Your task to perform on an android device: Go to Reddit.com Image 0: 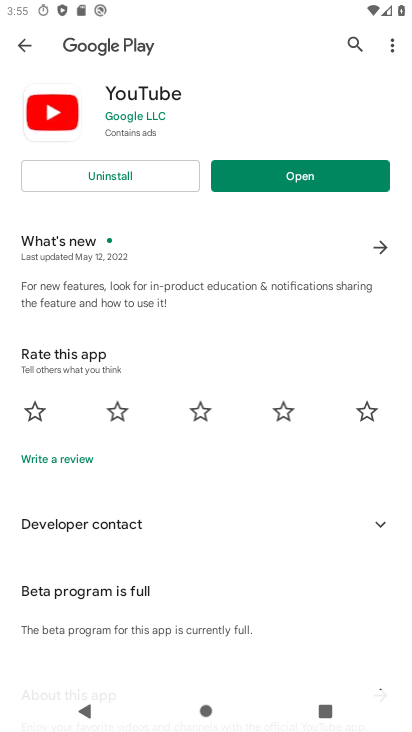
Step 0: press home button
Your task to perform on an android device: Go to Reddit.com Image 1: 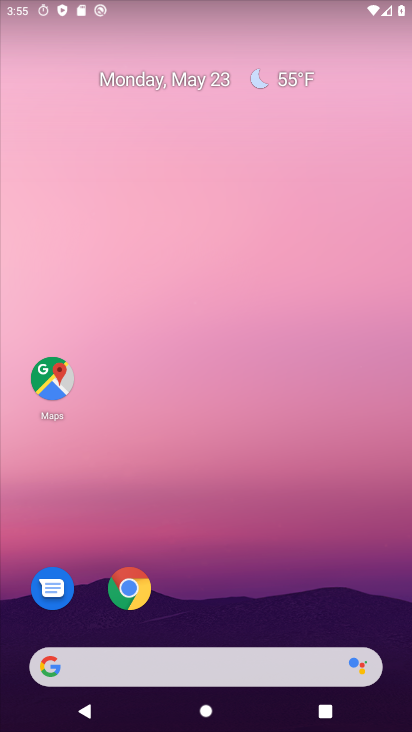
Step 1: drag from (244, 497) to (290, 117)
Your task to perform on an android device: Go to Reddit.com Image 2: 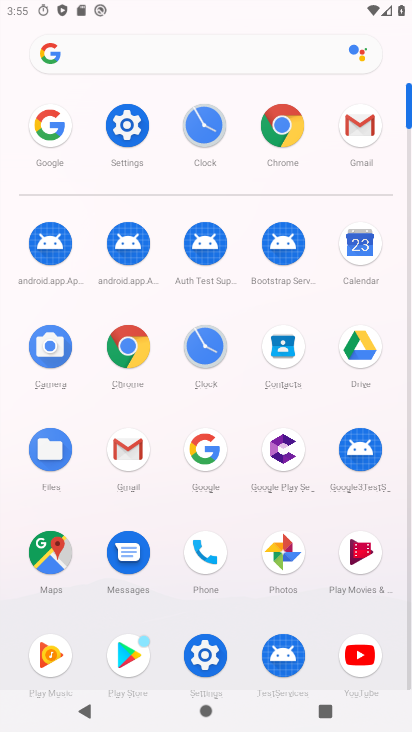
Step 2: click (201, 451)
Your task to perform on an android device: Go to Reddit.com Image 3: 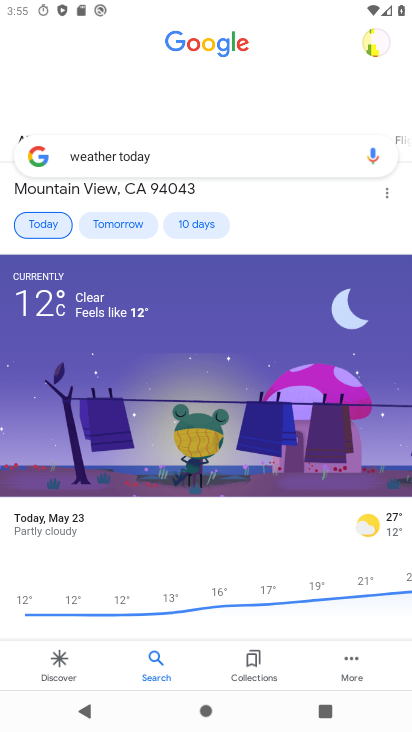
Step 3: click (209, 145)
Your task to perform on an android device: Go to Reddit.com Image 4: 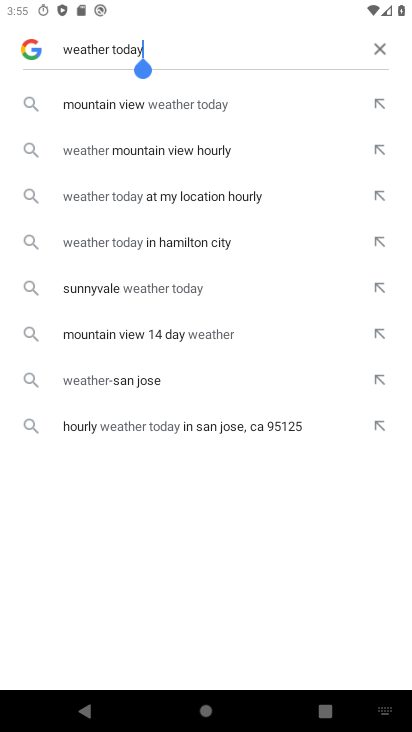
Step 4: click (381, 51)
Your task to perform on an android device: Go to Reddit.com Image 5: 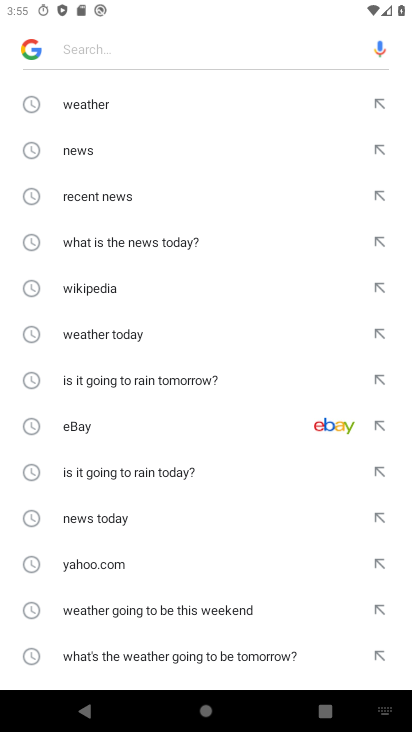
Step 5: drag from (160, 471) to (187, 131)
Your task to perform on an android device: Go to Reddit.com Image 6: 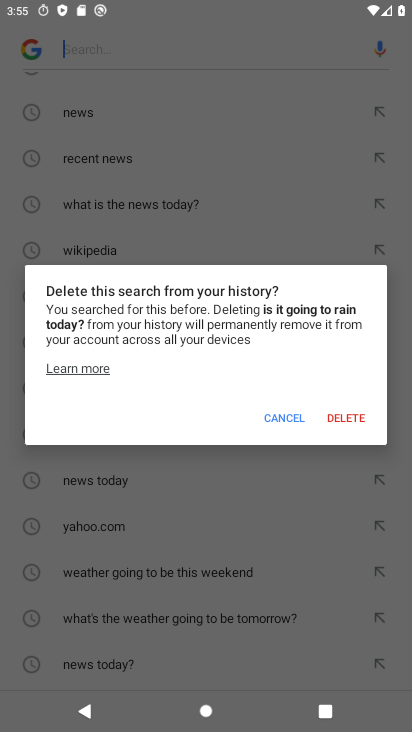
Step 6: click (291, 406)
Your task to perform on an android device: Go to Reddit.com Image 7: 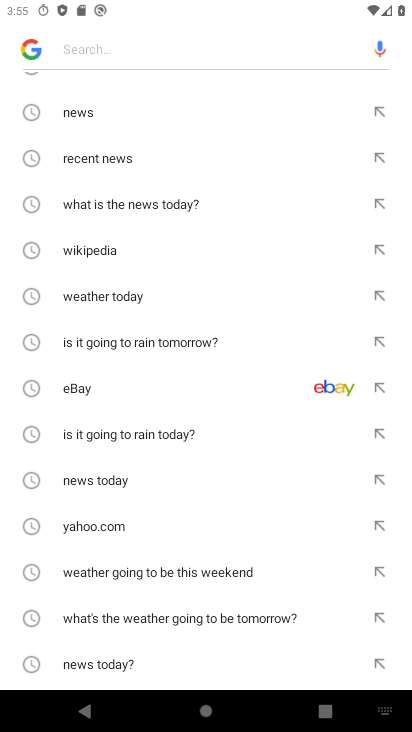
Step 7: drag from (148, 592) to (183, 222)
Your task to perform on an android device: Go to Reddit.com Image 8: 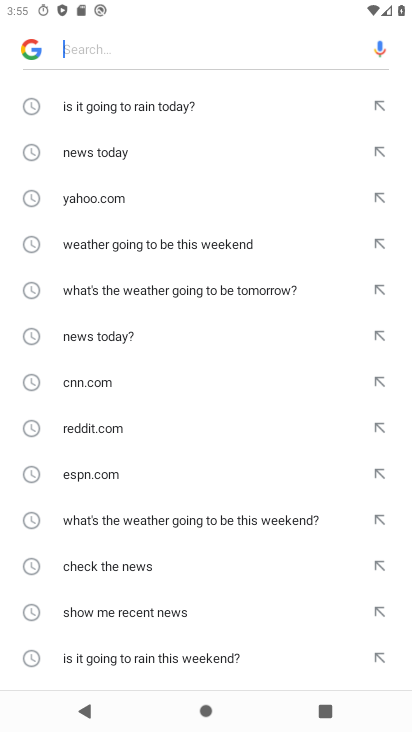
Step 8: click (99, 438)
Your task to perform on an android device: Go to Reddit.com Image 9: 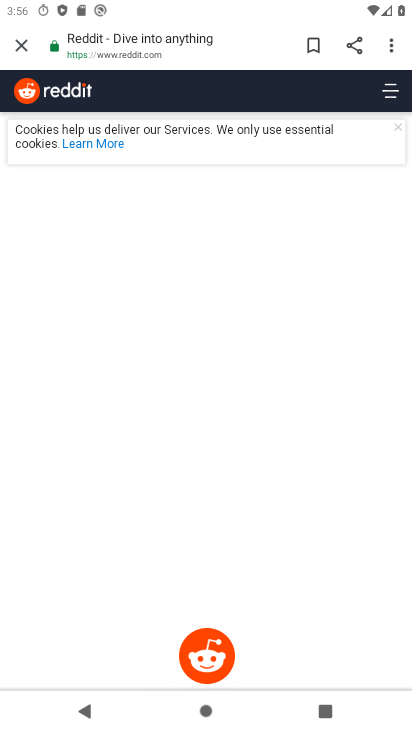
Step 9: task complete